Your task to perform on an android device: Go to battery settings Image 0: 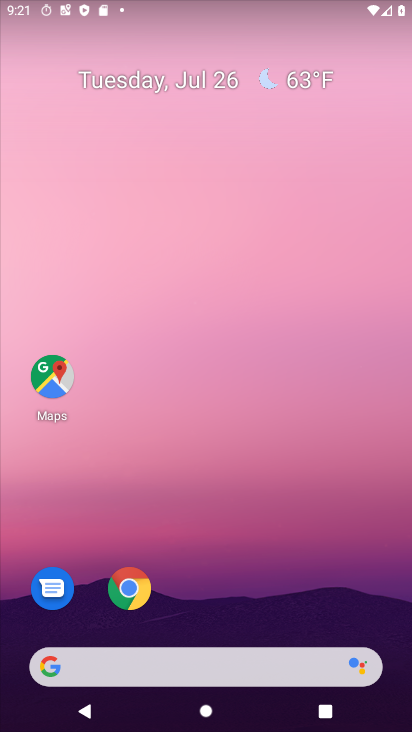
Step 0: drag from (183, 607) to (212, 135)
Your task to perform on an android device: Go to battery settings Image 1: 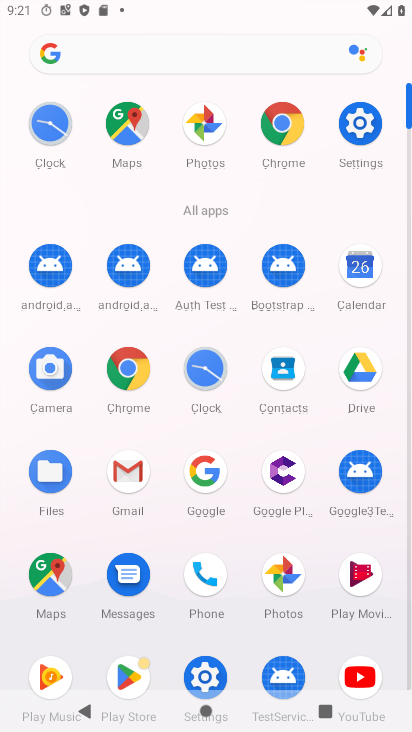
Step 1: drag from (197, 7) to (235, 524)
Your task to perform on an android device: Go to battery settings Image 2: 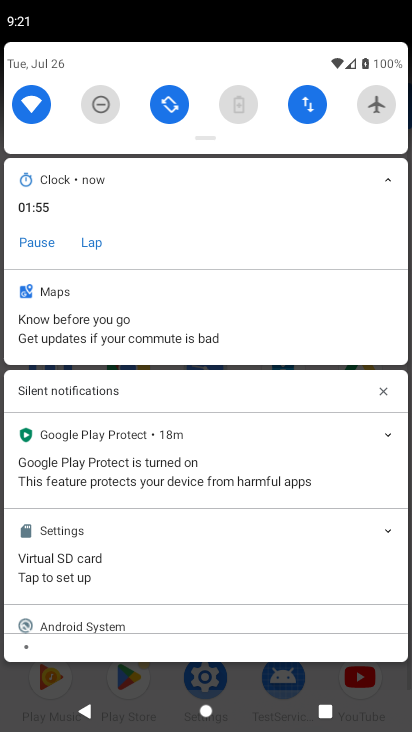
Step 2: click (237, 112)
Your task to perform on an android device: Go to battery settings Image 3: 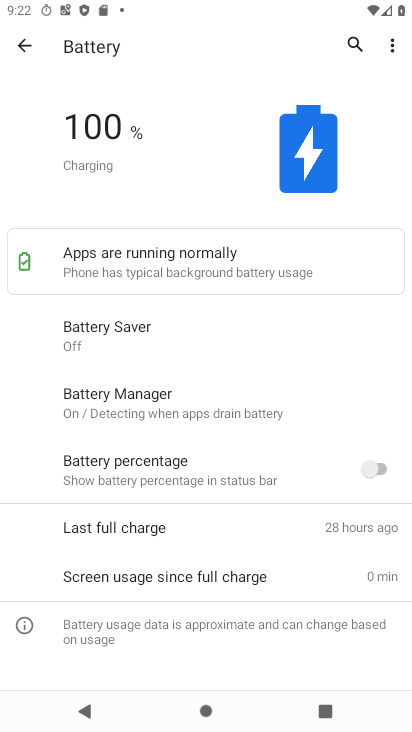
Step 3: task complete